Your task to perform on an android device: Go to privacy settings Image 0: 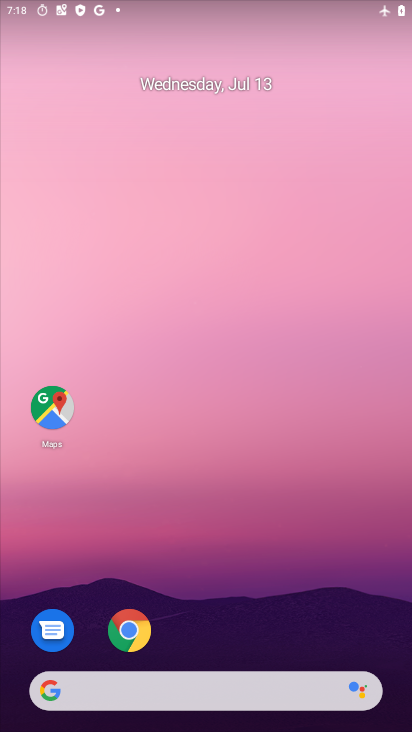
Step 0: drag from (326, 604) to (205, 2)
Your task to perform on an android device: Go to privacy settings Image 1: 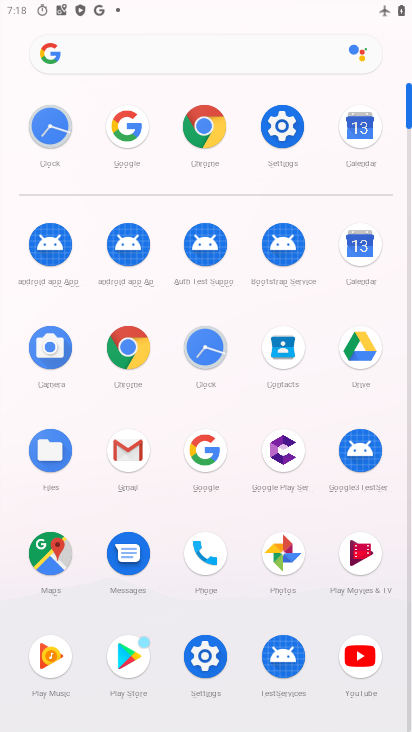
Step 1: click (287, 145)
Your task to perform on an android device: Go to privacy settings Image 2: 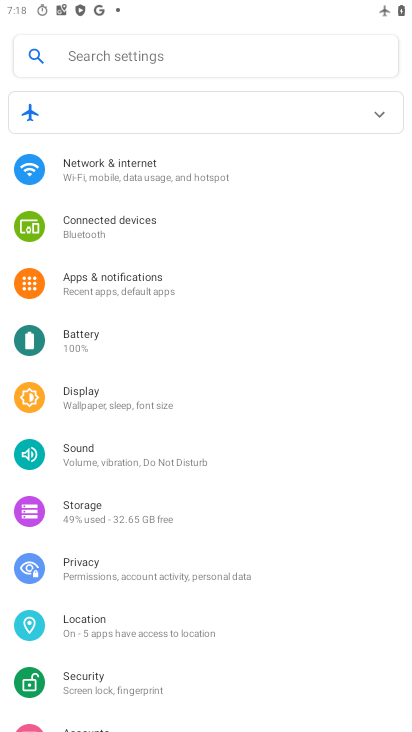
Step 2: click (70, 575)
Your task to perform on an android device: Go to privacy settings Image 3: 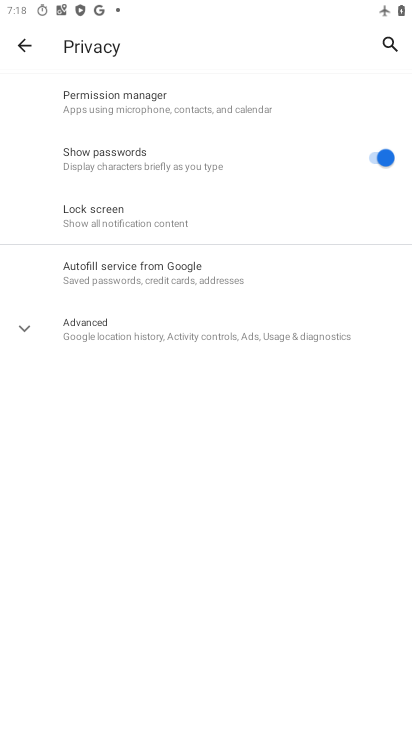
Step 3: task complete